Your task to perform on an android device: open app "Google Find My Device" (install if not already installed) Image 0: 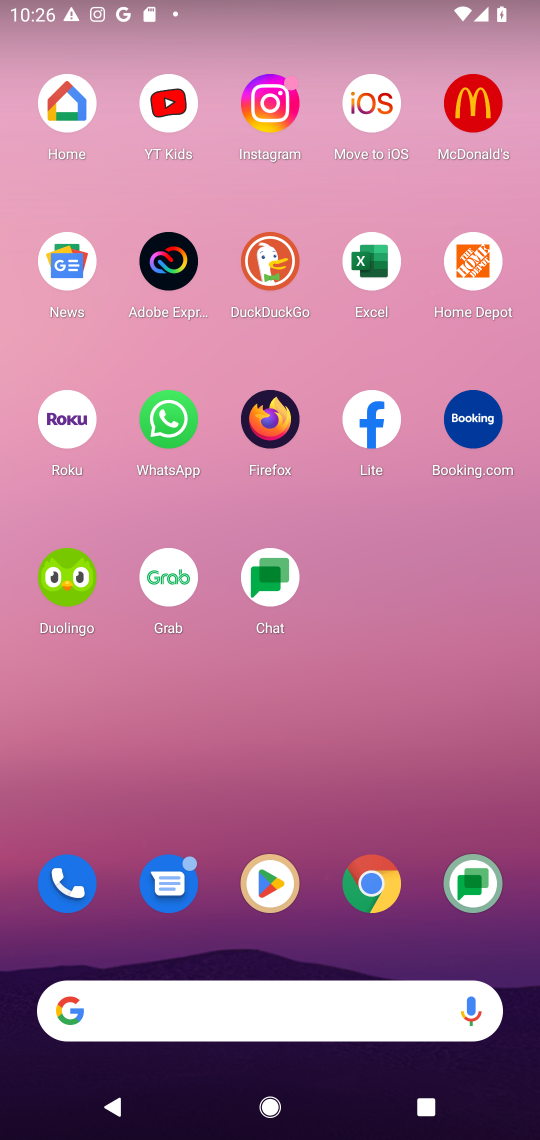
Step 0: press home button
Your task to perform on an android device: open app "Google Find My Device" (install if not already installed) Image 1: 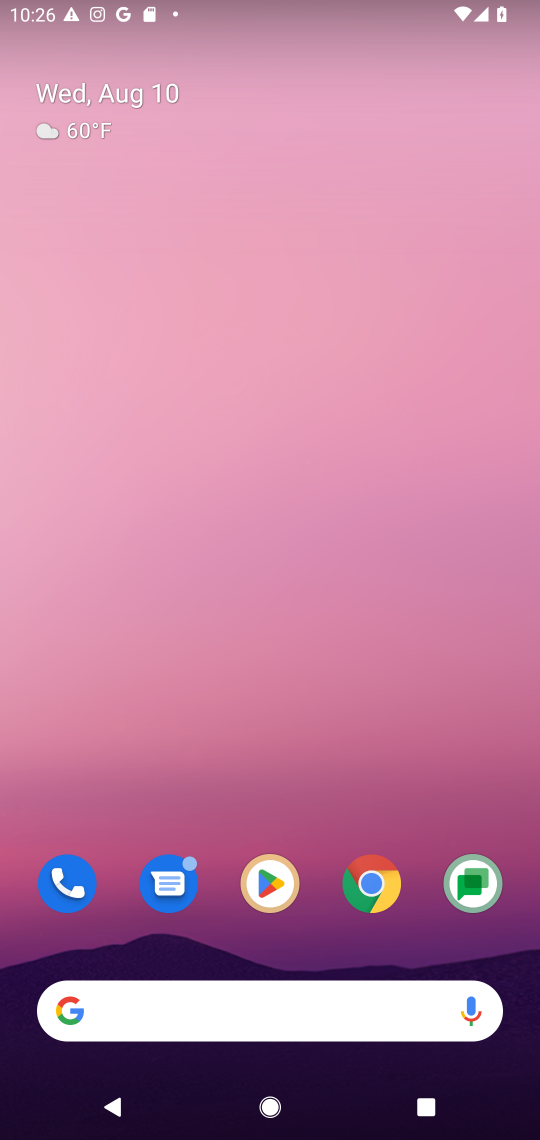
Step 1: drag from (470, 688) to (426, 68)
Your task to perform on an android device: open app "Google Find My Device" (install if not already installed) Image 2: 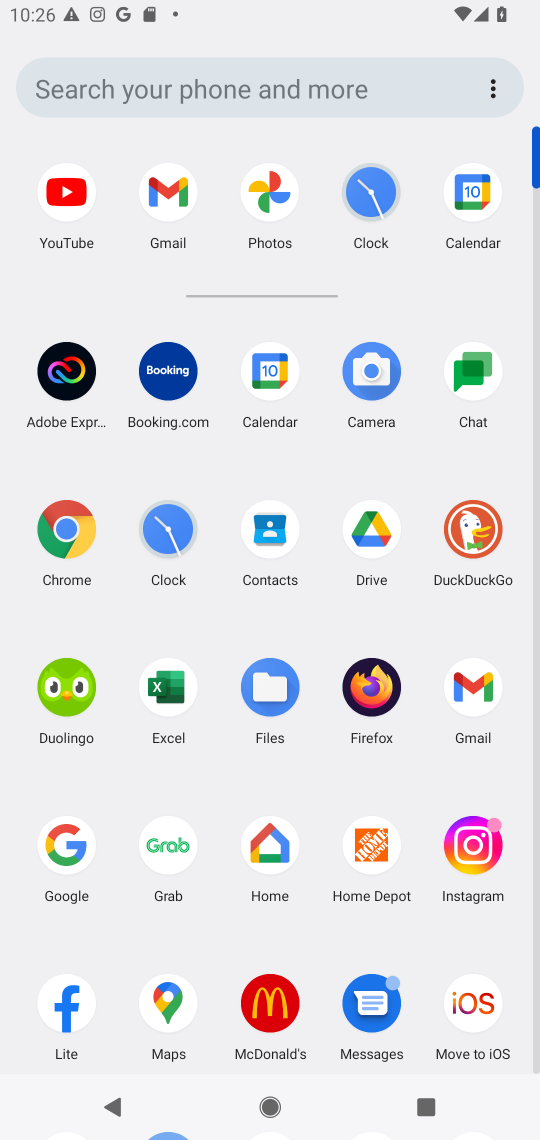
Step 2: drag from (500, 930) to (506, 420)
Your task to perform on an android device: open app "Google Find My Device" (install if not already installed) Image 3: 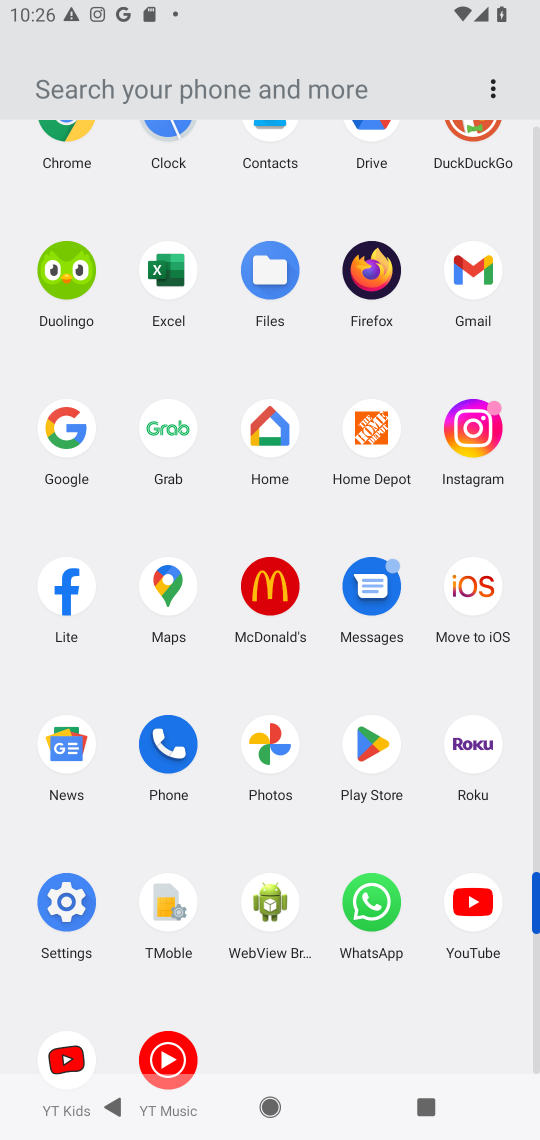
Step 3: click (369, 755)
Your task to perform on an android device: open app "Google Find My Device" (install if not already installed) Image 4: 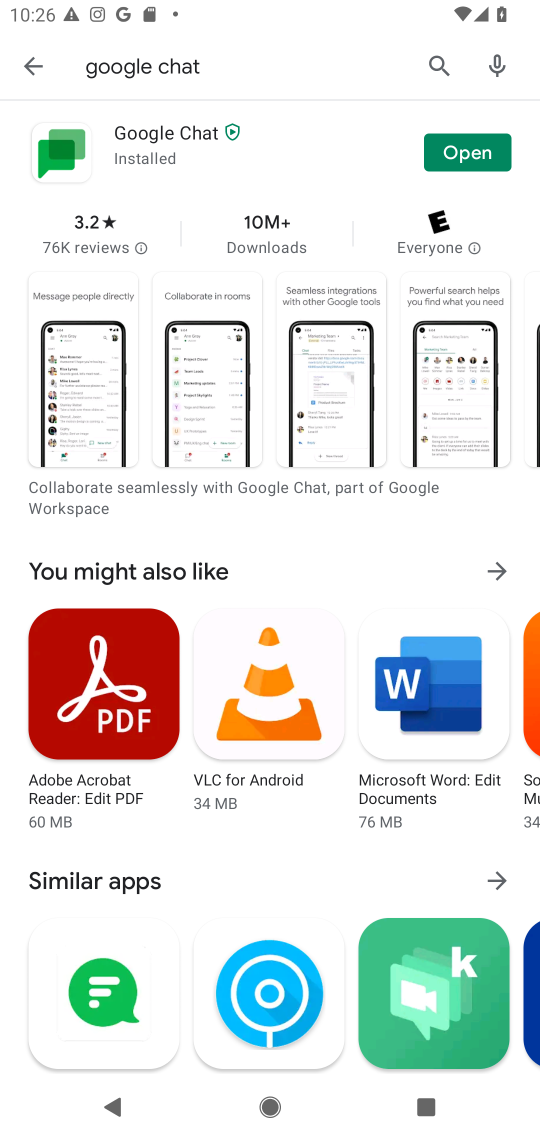
Step 4: click (436, 61)
Your task to perform on an android device: open app "Google Find My Device" (install if not already installed) Image 5: 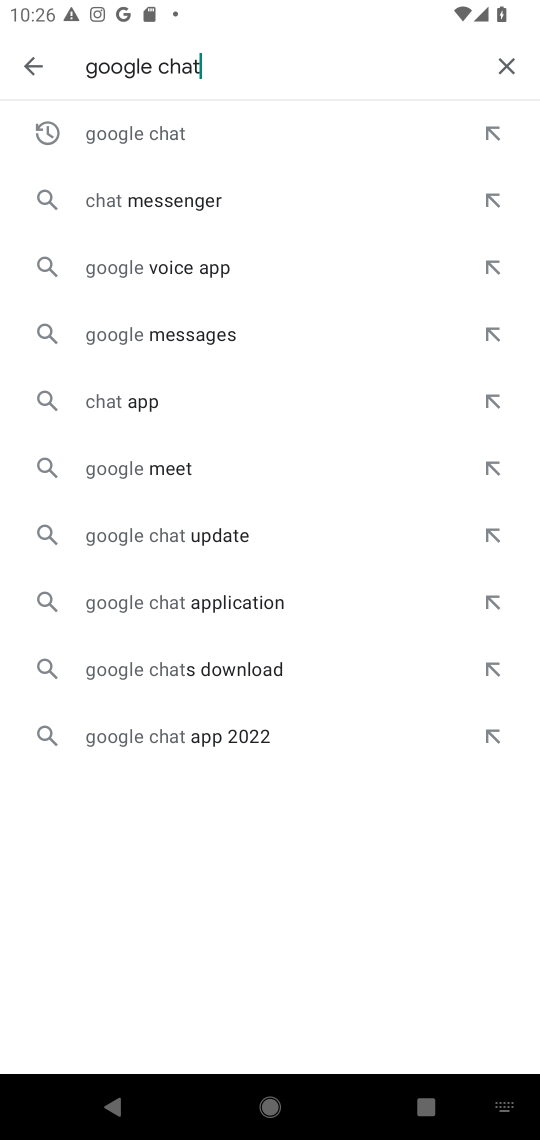
Step 5: click (505, 62)
Your task to perform on an android device: open app "Google Find My Device" (install if not already installed) Image 6: 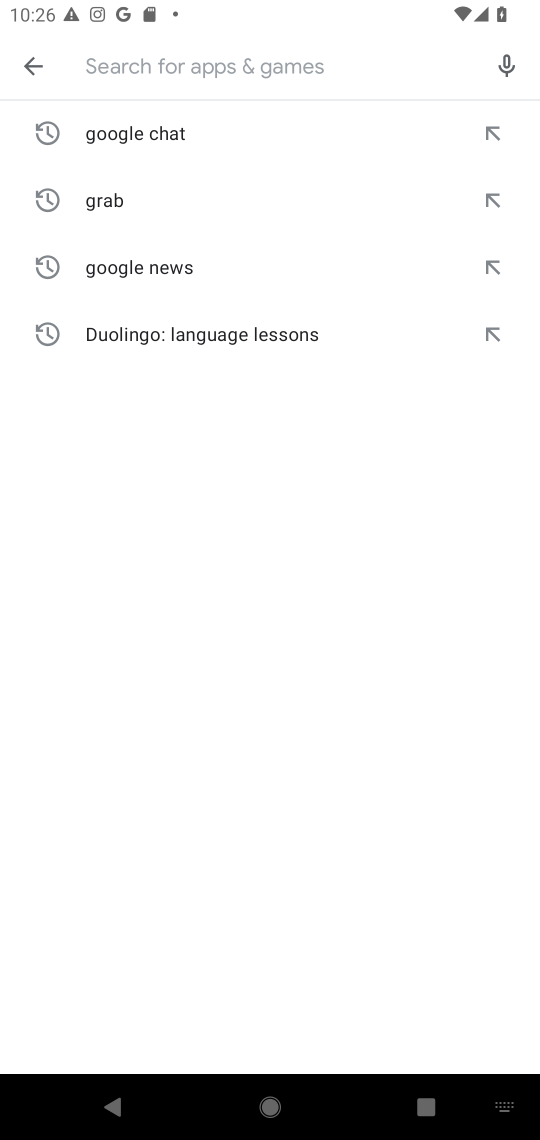
Step 6: type "Google Find My Device"
Your task to perform on an android device: open app "Google Find My Device" (install if not already installed) Image 7: 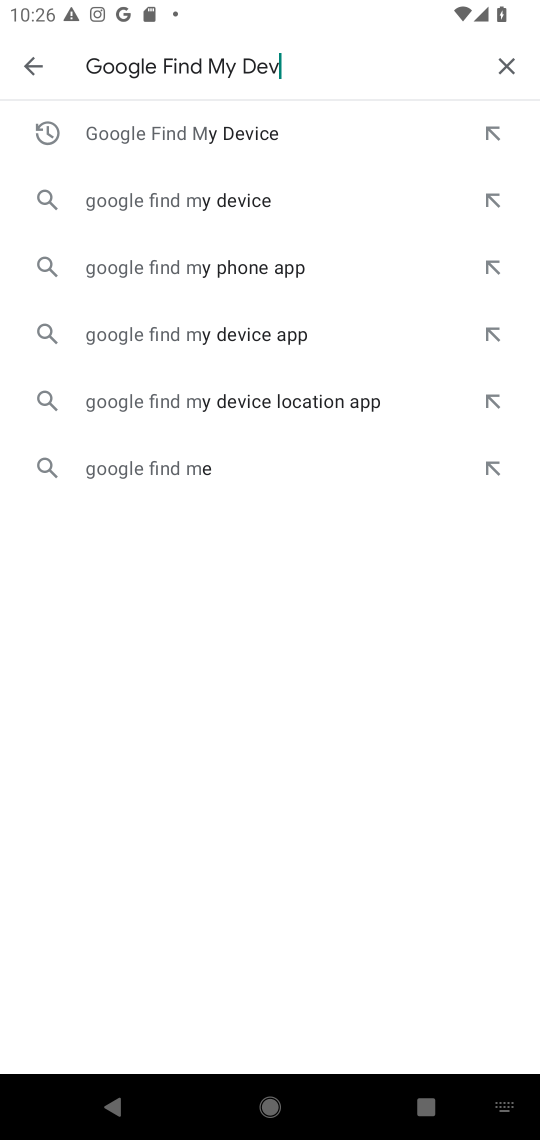
Step 7: press enter
Your task to perform on an android device: open app "Google Find My Device" (install if not already installed) Image 8: 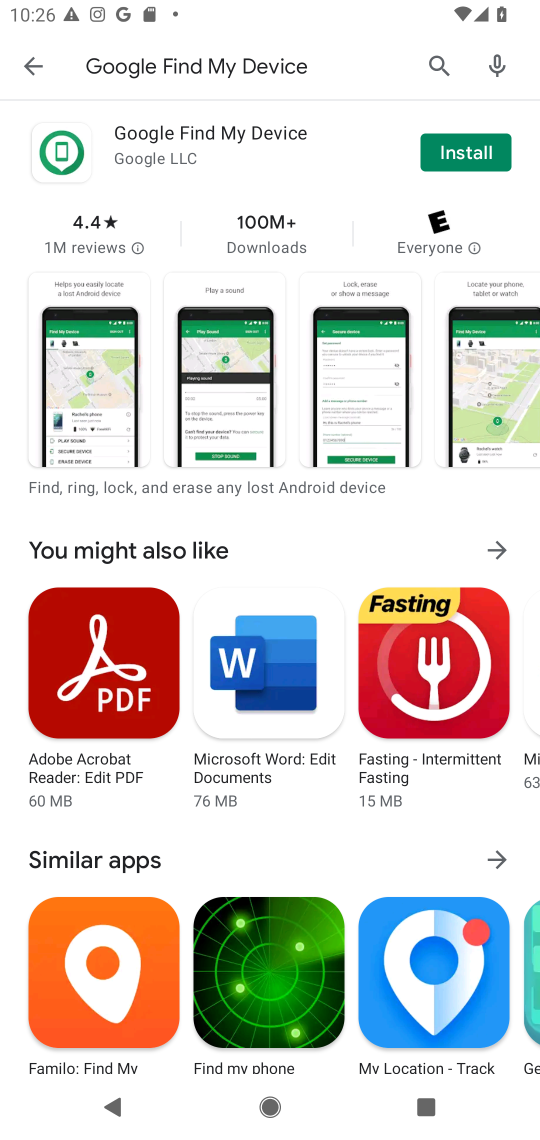
Step 8: click (482, 144)
Your task to perform on an android device: open app "Google Find My Device" (install if not already installed) Image 9: 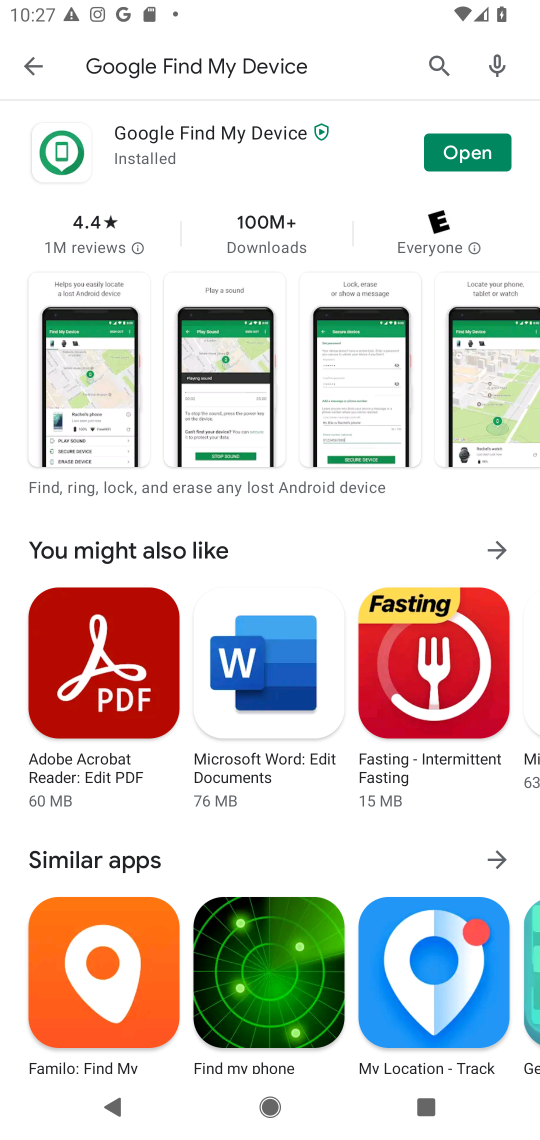
Step 9: click (467, 147)
Your task to perform on an android device: open app "Google Find My Device" (install if not already installed) Image 10: 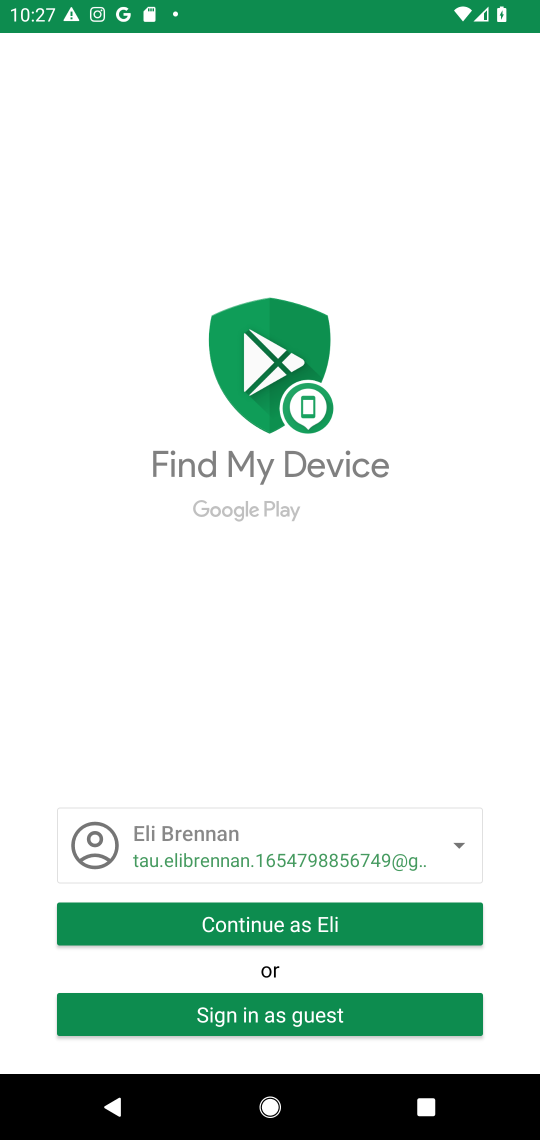
Step 10: task complete